Your task to perform on an android device: find which apps use the phone's location Image 0: 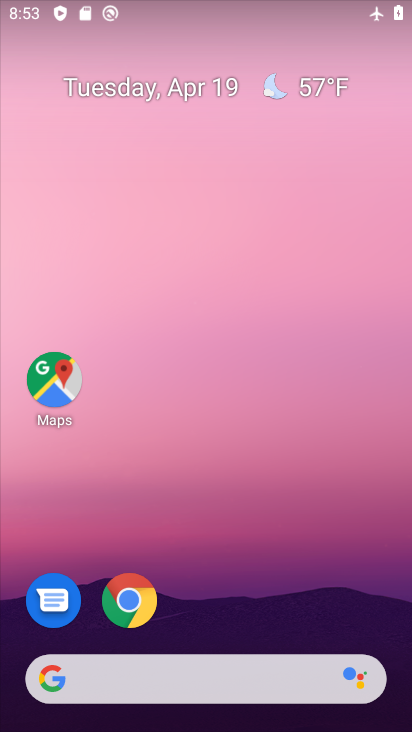
Step 0: drag from (361, 571) to (350, 140)
Your task to perform on an android device: find which apps use the phone's location Image 1: 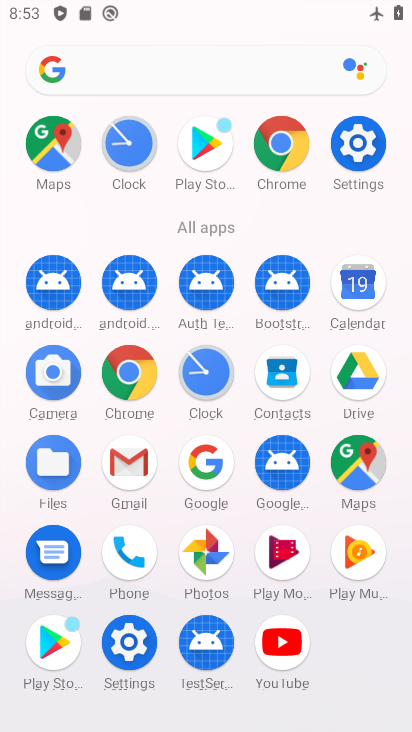
Step 1: click (364, 144)
Your task to perform on an android device: find which apps use the phone's location Image 2: 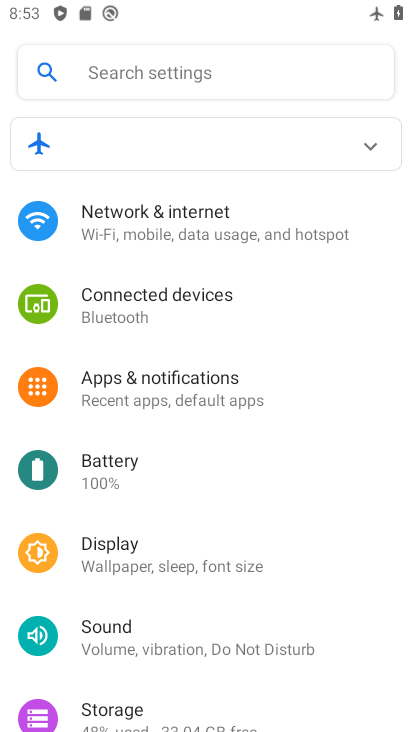
Step 2: drag from (392, 606) to (371, 300)
Your task to perform on an android device: find which apps use the phone's location Image 3: 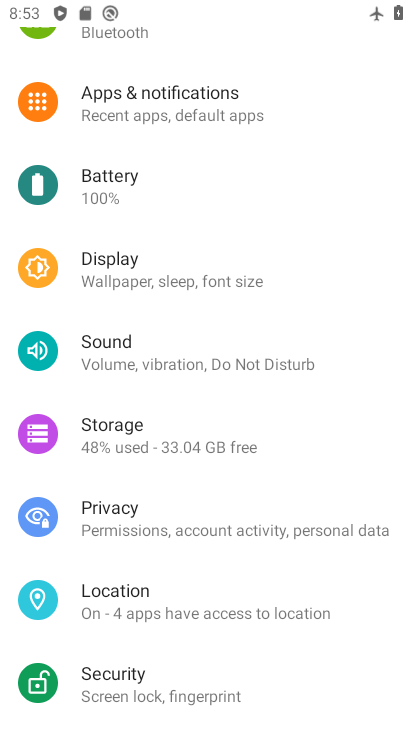
Step 3: drag from (374, 571) to (395, 319)
Your task to perform on an android device: find which apps use the phone's location Image 4: 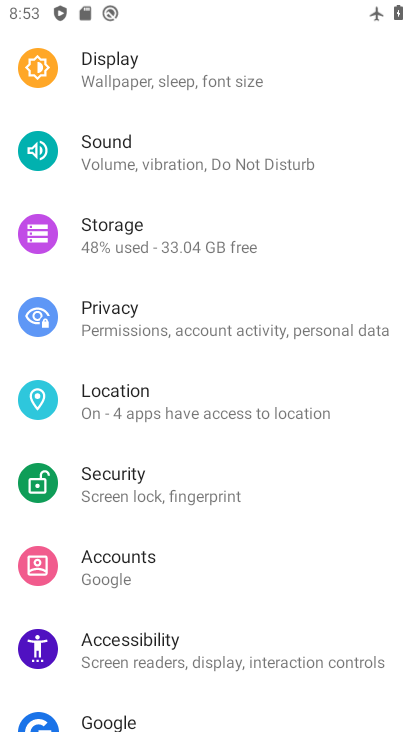
Step 4: click (131, 414)
Your task to perform on an android device: find which apps use the phone's location Image 5: 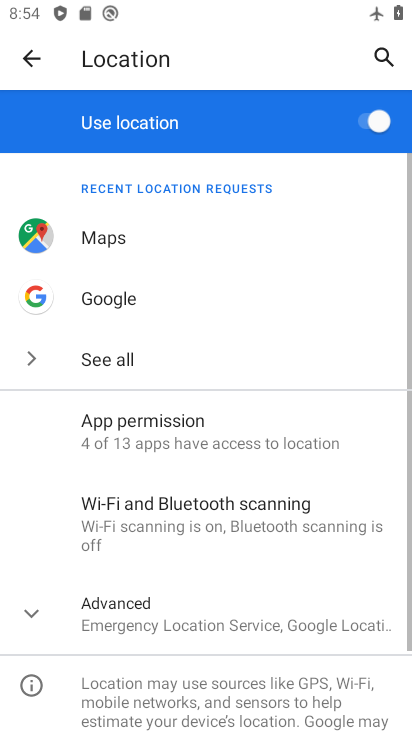
Step 5: click (151, 417)
Your task to perform on an android device: find which apps use the phone's location Image 6: 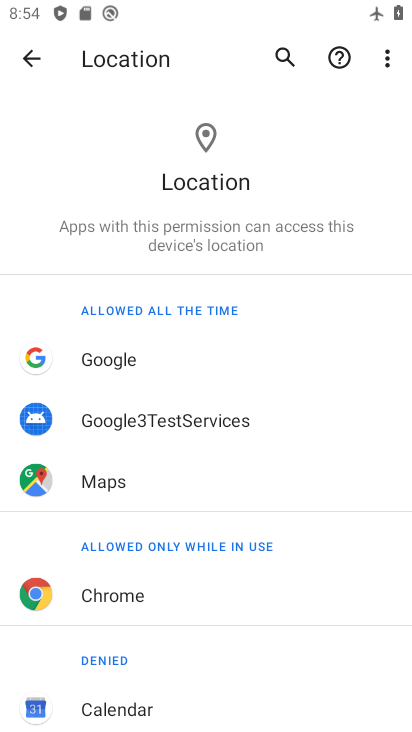
Step 6: drag from (361, 584) to (383, 374)
Your task to perform on an android device: find which apps use the phone's location Image 7: 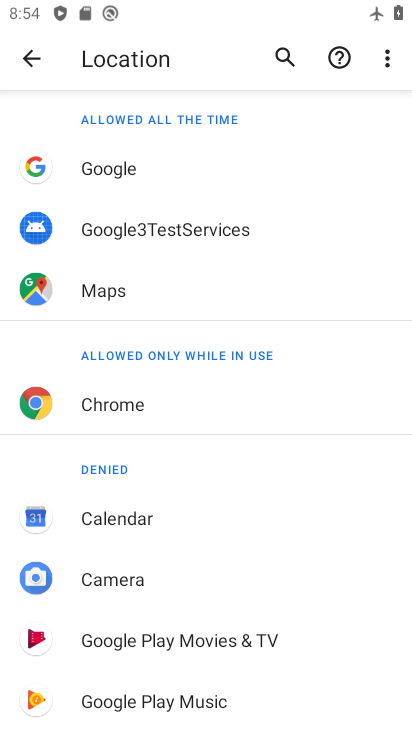
Step 7: drag from (365, 623) to (364, 367)
Your task to perform on an android device: find which apps use the phone's location Image 8: 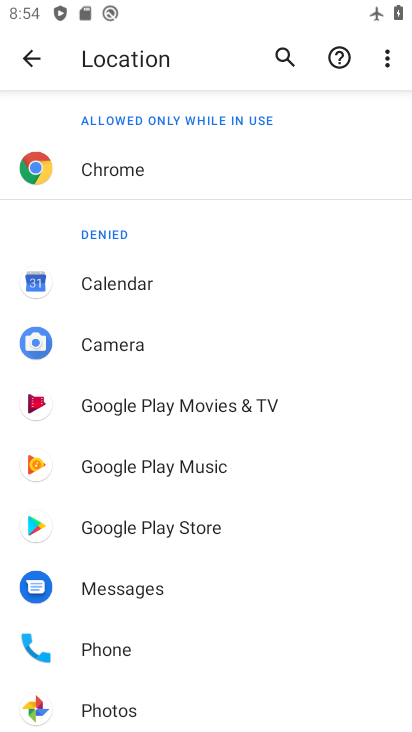
Step 8: drag from (343, 633) to (355, 396)
Your task to perform on an android device: find which apps use the phone's location Image 9: 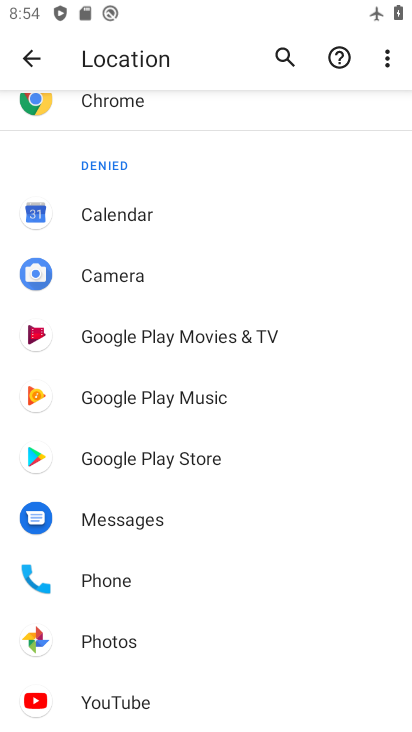
Step 9: click (142, 631)
Your task to perform on an android device: find which apps use the phone's location Image 10: 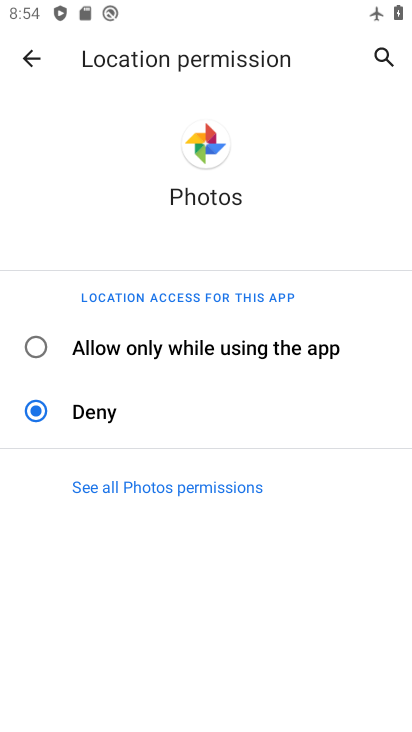
Step 10: click (29, 336)
Your task to perform on an android device: find which apps use the phone's location Image 11: 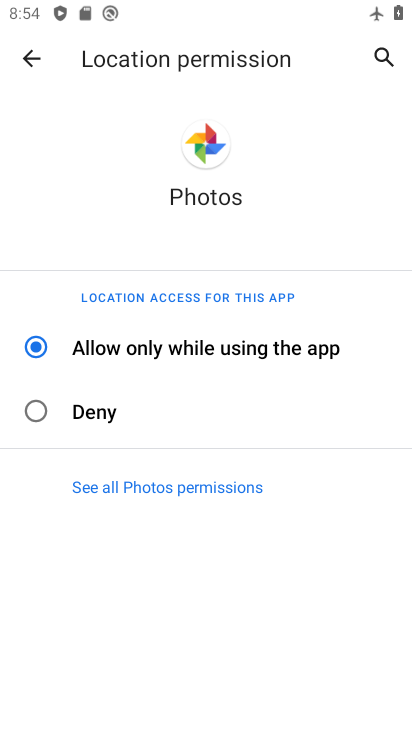
Step 11: task complete